Your task to perform on an android device: turn off picture-in-picture Image 0: 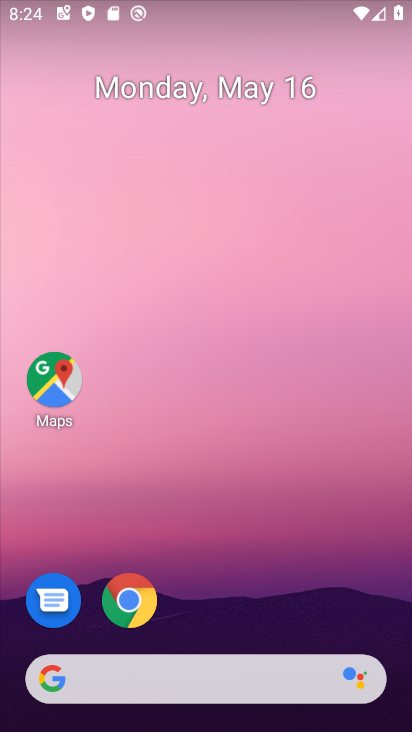
Step 0: click (133, 586)
Your task to perform on an android device: turn off picture-in-picture Image 1: 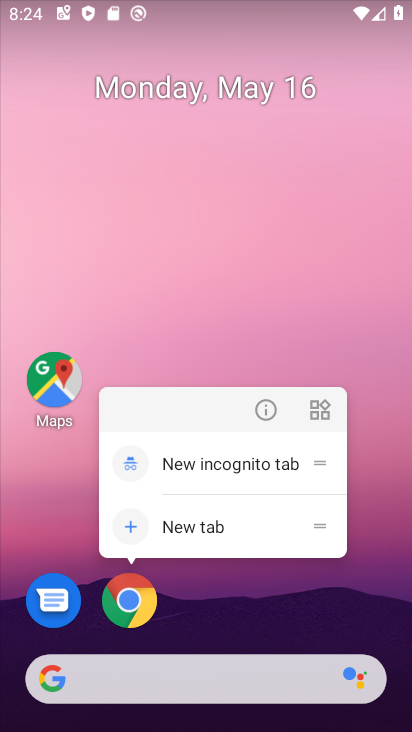
Step 1: click (267, 404)
Your task to perform on an android device: turn off picture-in-picture Image 2: 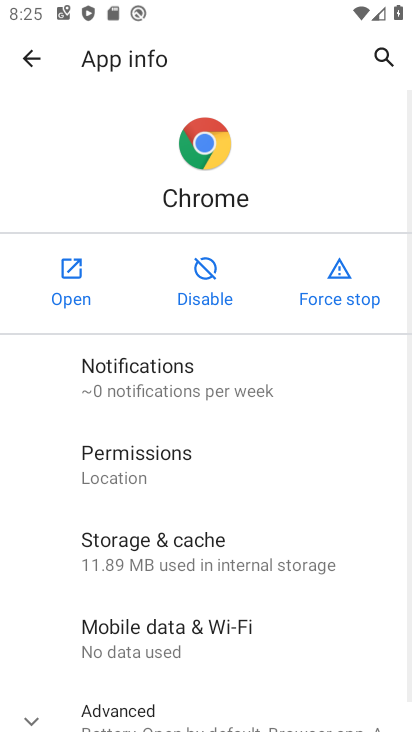
Step 2: drag from (302, 617) to (409, 171)
Your task to perform on an android device: turn off picture-in-picture Image 3: 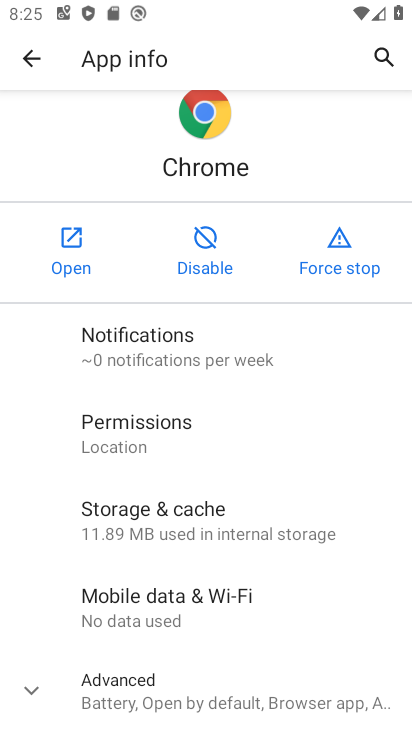
Step 3: click (135, 676)
Your task to perform on an android device: turn off picture-in-picture Image 4: 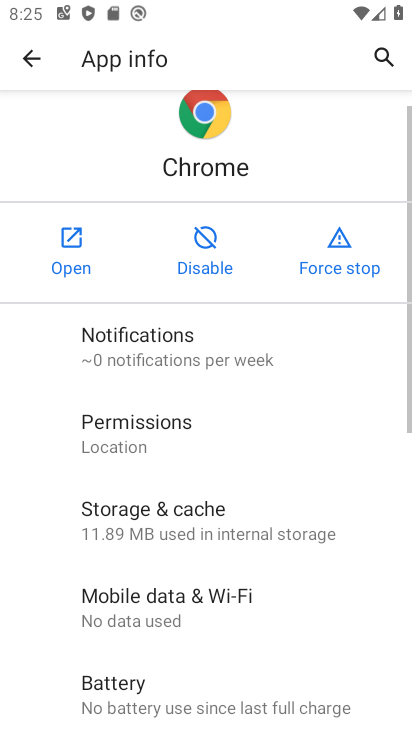
Step 4: drag from (171, 606) to (277, 220)
Your task to perform on an android device: turn off picture-in-picture Image 5: 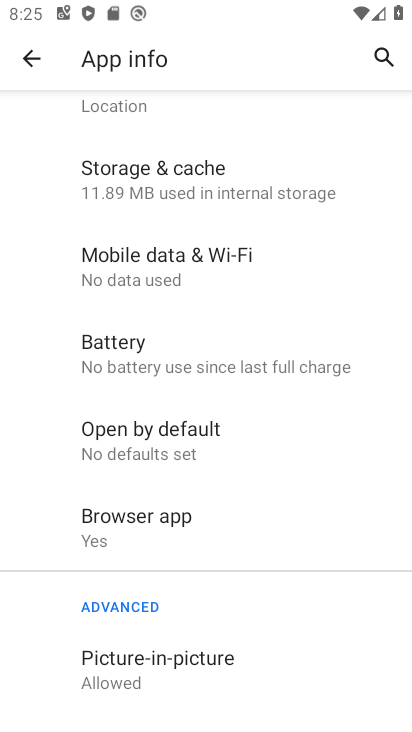
Step 5: click (106, 675)
Your task to perform on an android device: turn off picture-in-picture Image 6: 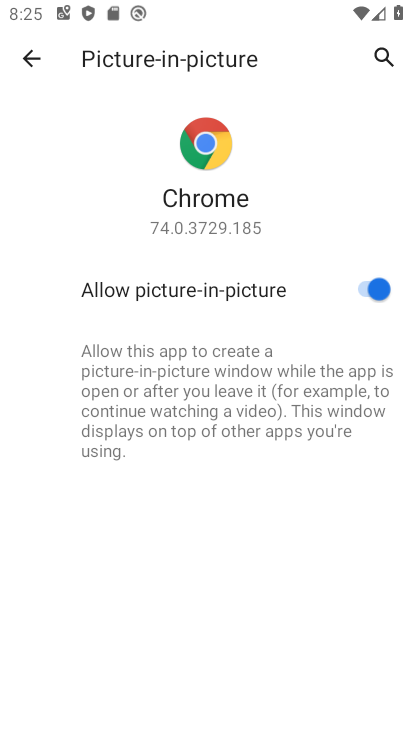
Step 6: click (380, 296)
Your task to perform on an android device: turn off picture-in-picture Image 7: 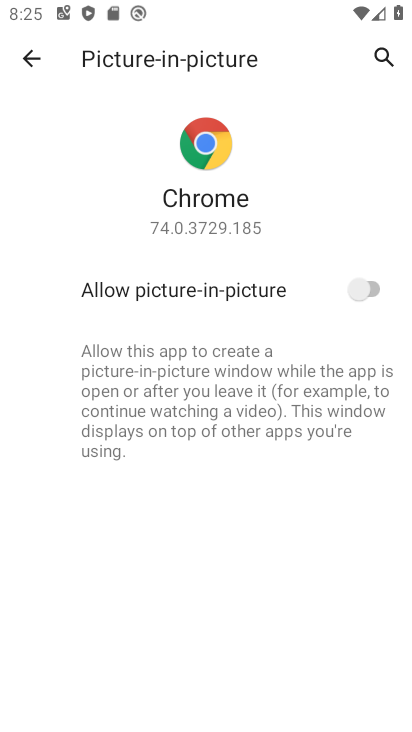
Step 7: task complete